Your task to perform on an android device: Search for "macbook pro 13 inch" on costco.com, select the first entry, and add it to the cart. Image 0: 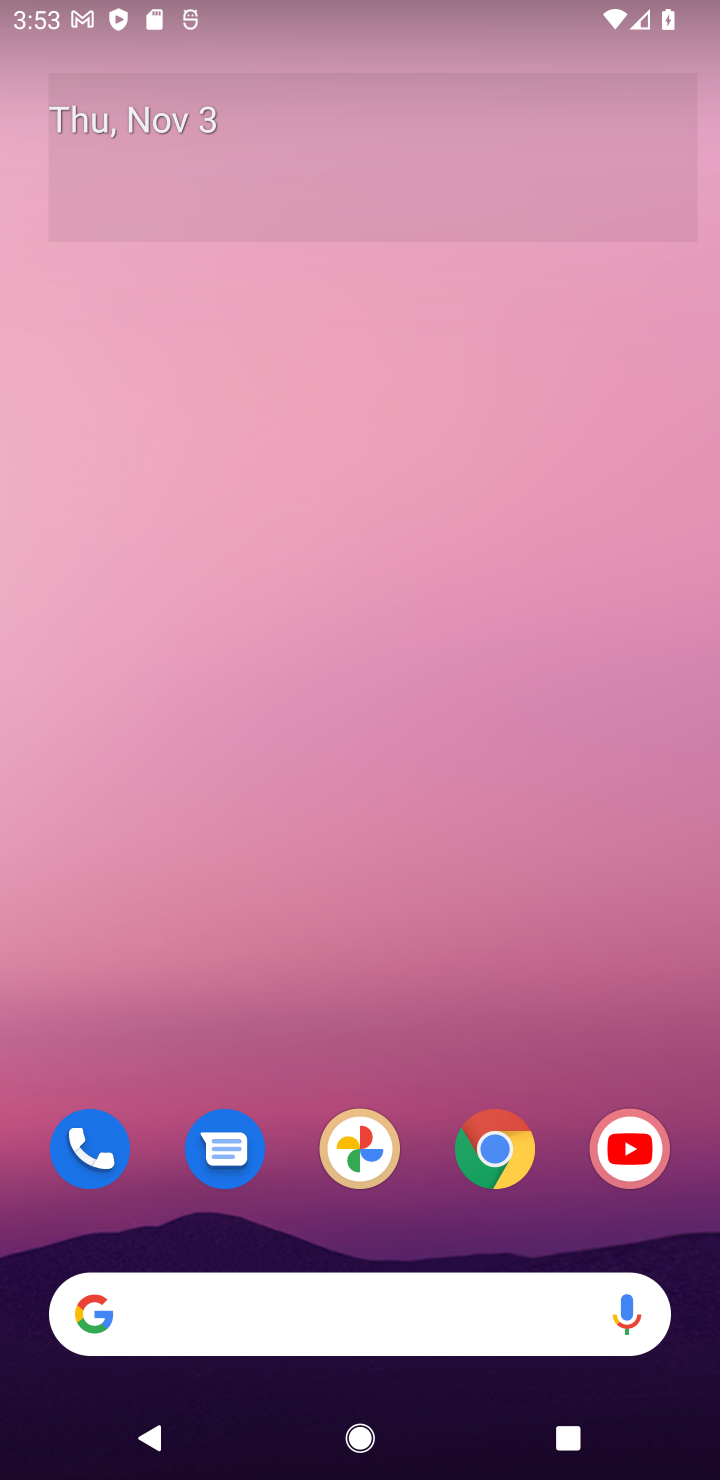
Step 0: press home button
Your task to perform on an android device: Search for "macbook pro 13 inch" on costco.com, select the first entry, and add it to the cart. Image 1: 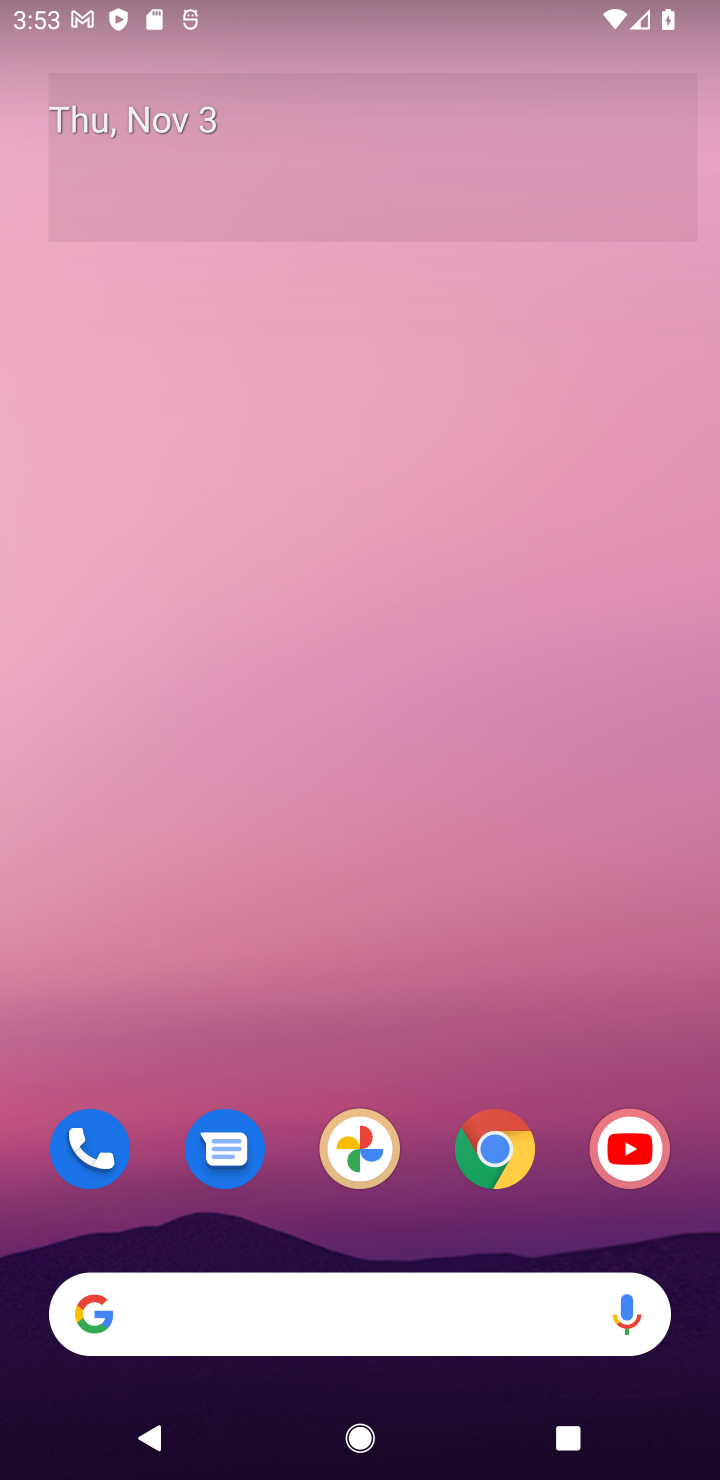
Step 1: drag from (419, 1062) to (502, 11)
Your task to perform on an android device: Search for "macbook pro 13 inch" on costco.com, select the first entry, and add it to the cart. Image 2: 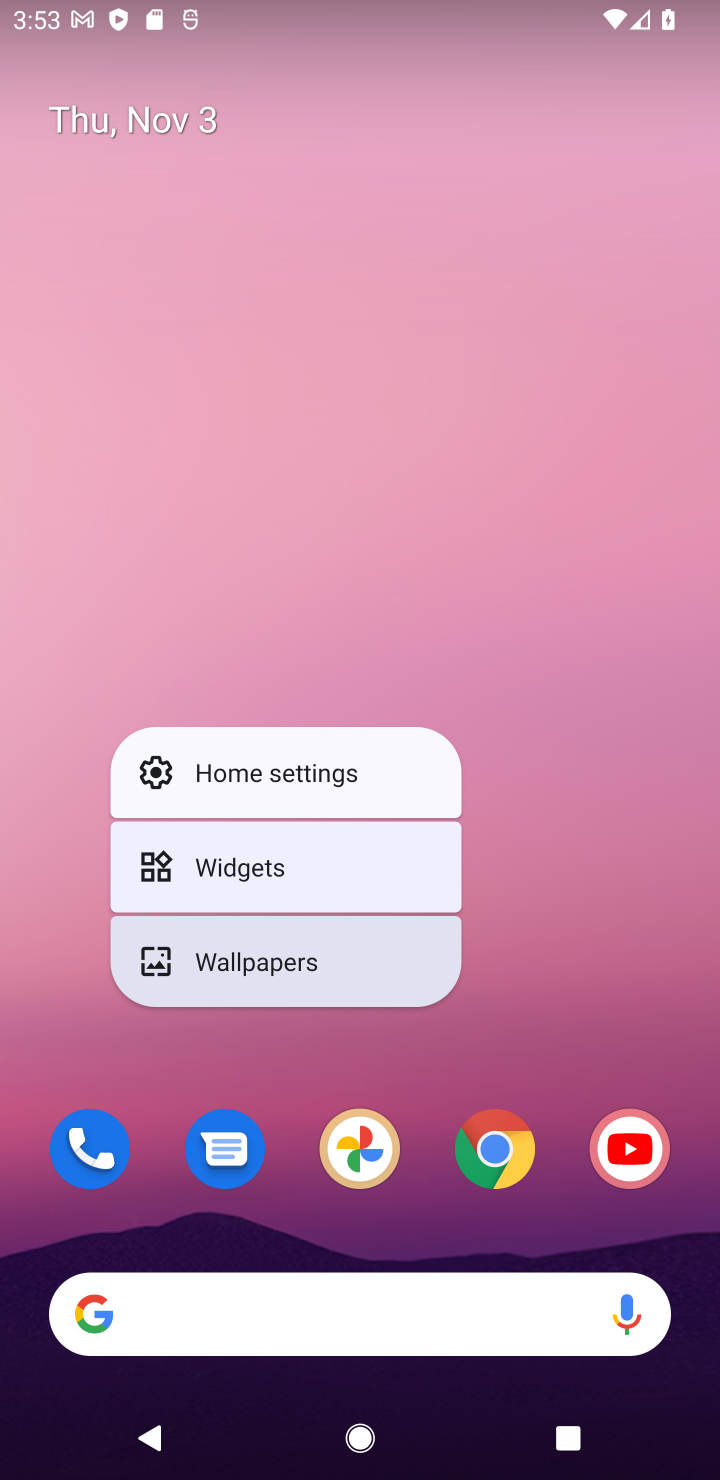
Step 2: click (594, 724)
Your task to perform on an android device: Search for "macbook pro 13 inch" on costco.com, select the first entry, and add it to the cart. Image 3: 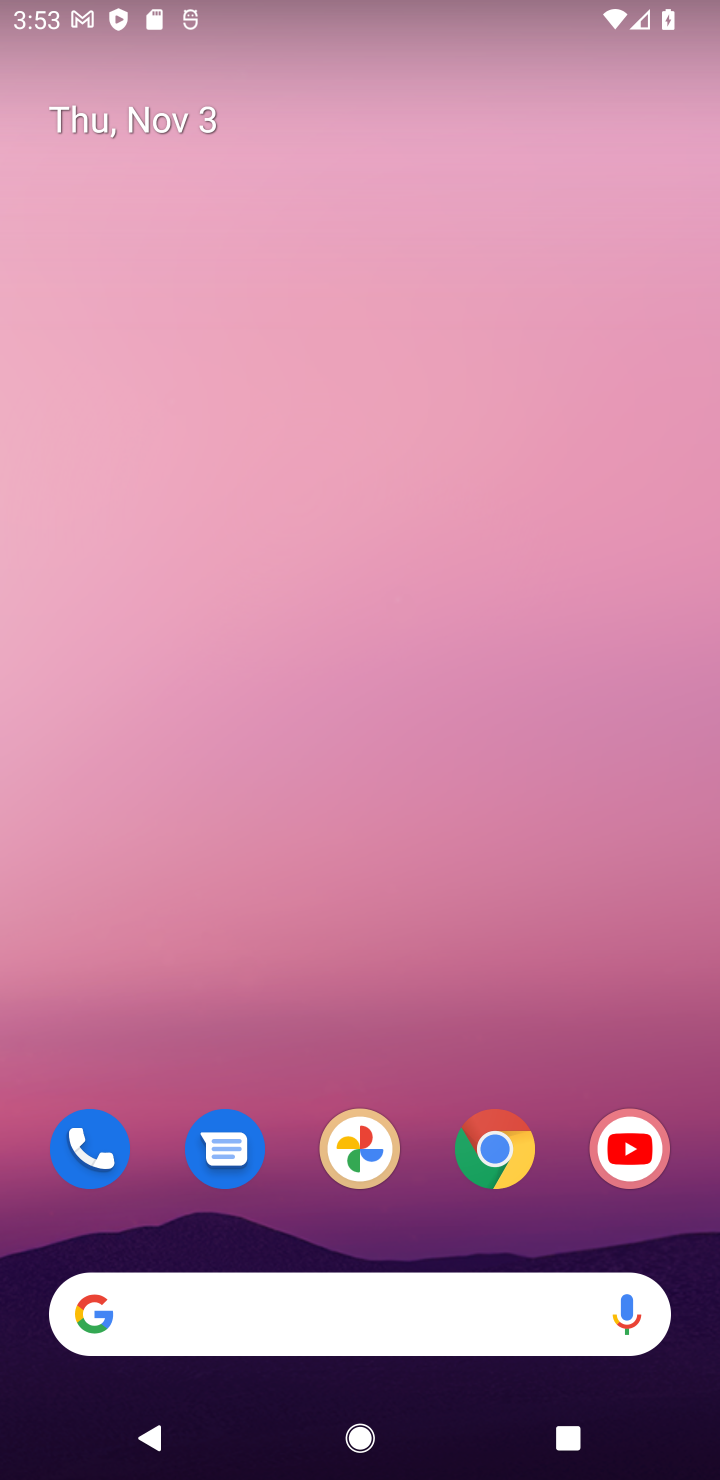
Step 3: drag from (409, 1055) to (419, 27)
Your task to perform on an android device: Search for "macbook pro 13 inch" on costco.com, select the first entry, and add it to the cart. Image 4: 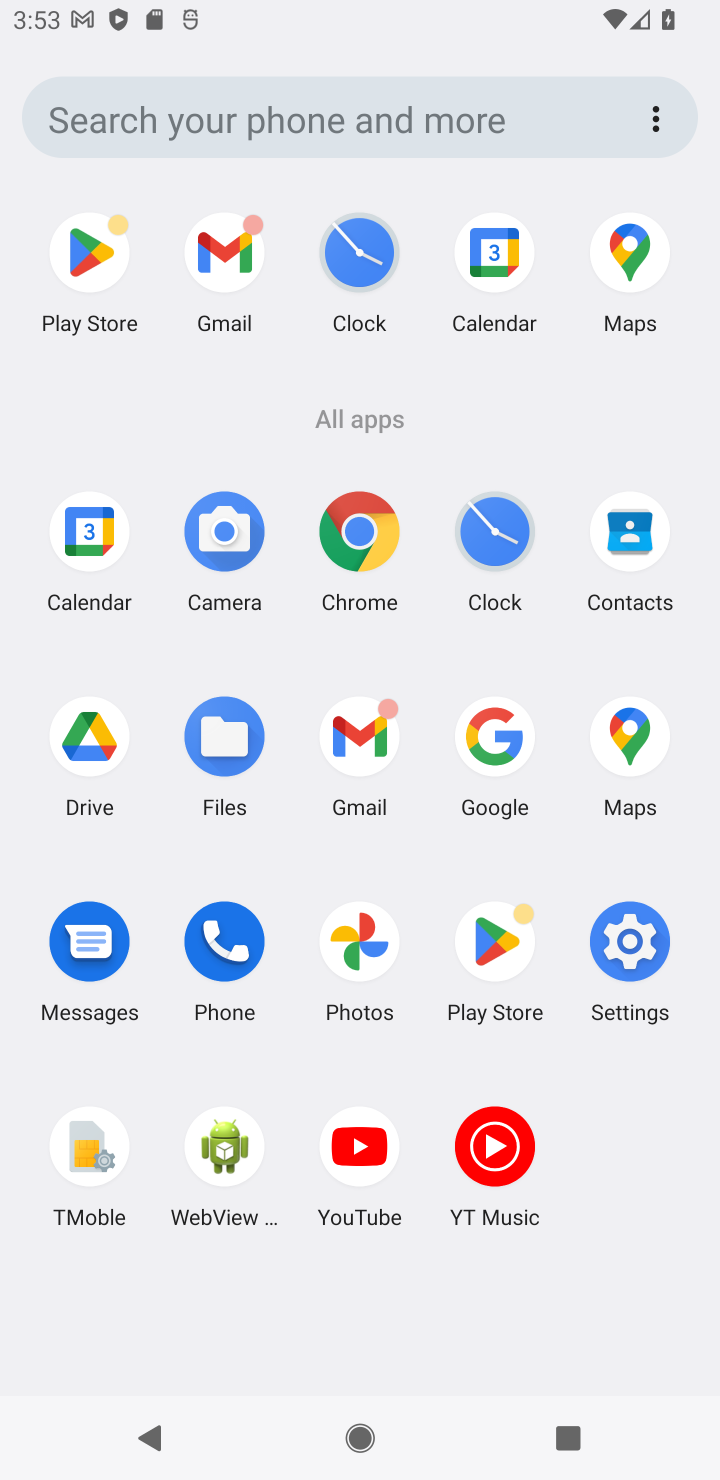
Step 4: click (354, 531)
Your task to perform on an android device: Search for "macbook pro 13 inch" on costco.com, select the first entry, and add it to the cart. Image 5: 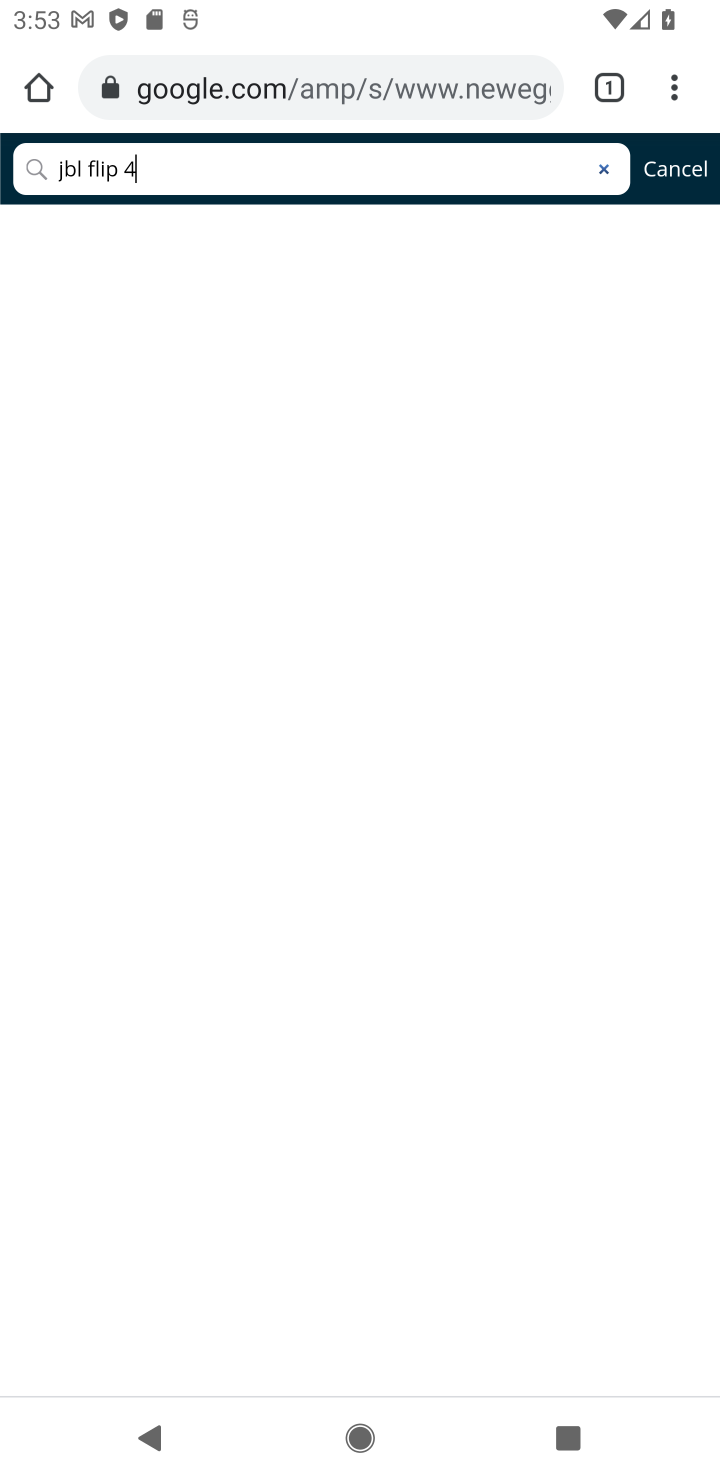
Step 5: click (217, 90)
Your task to perform on an android device: Search for "macbook pro 13 inch" on costco.com, select the first entry, and add it to the cart. Image 6: 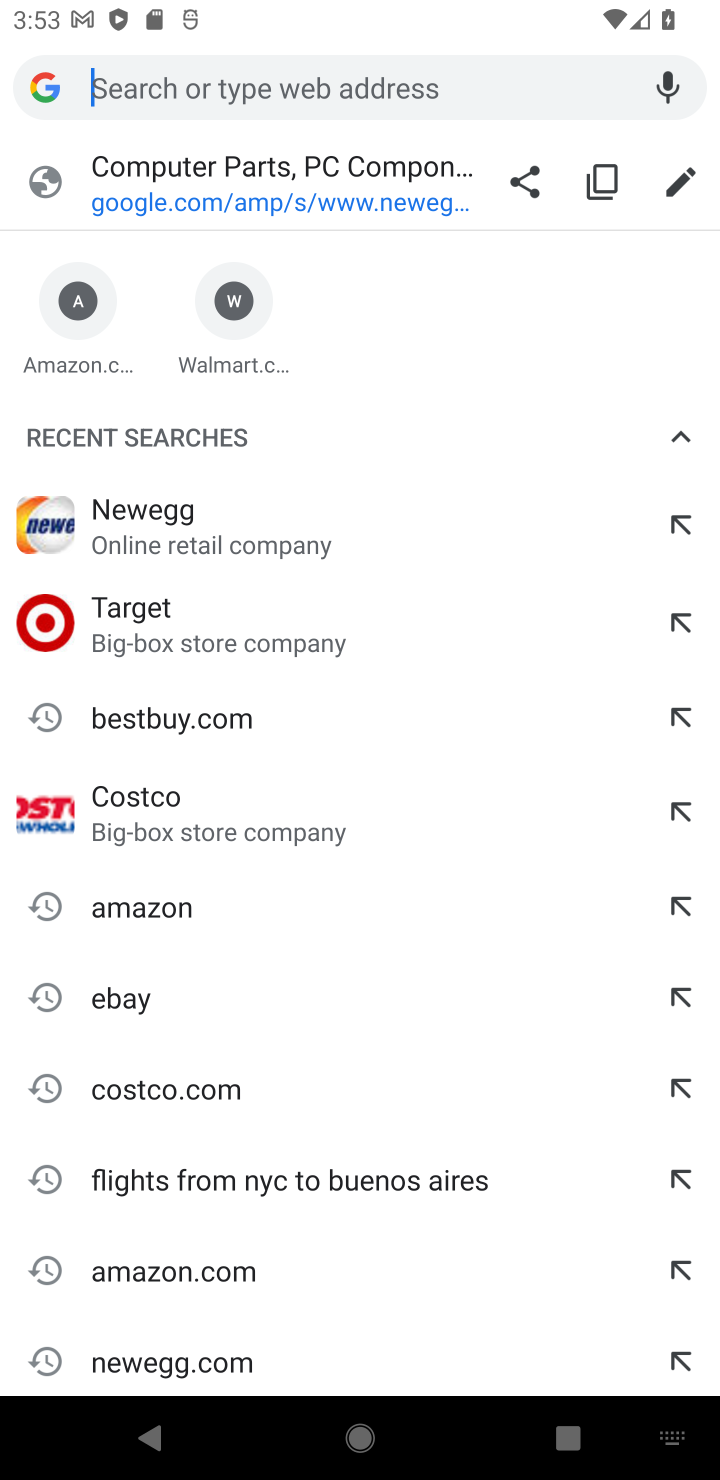
Step 6: click (202, 816)
Your task to perform on an android device: Search for "macbook pro 13 inch" on costco.com, select the first entry, and add it to the cart. Image 7: 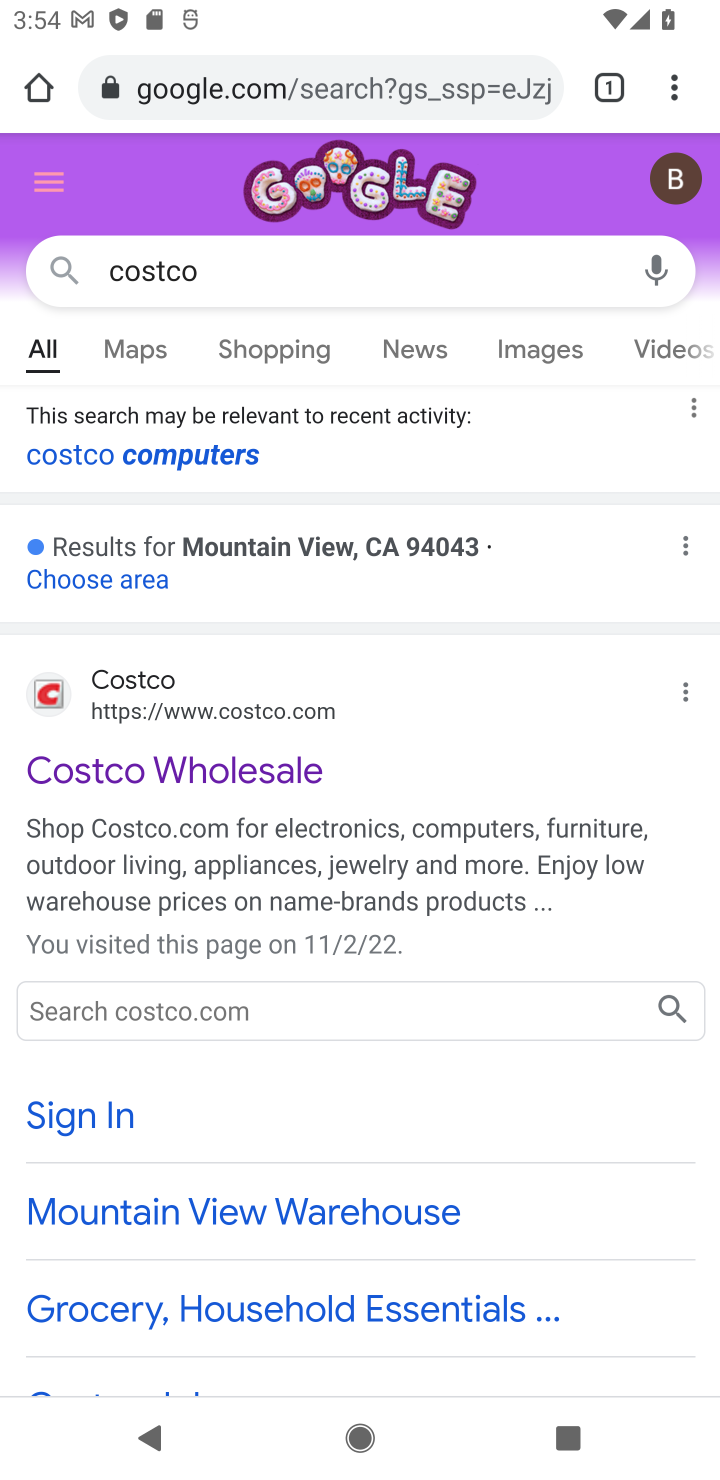
Step 7: click (243, 764)
Your task to perform on an android device: Search for "macbook pro 13 inch" on costco.com, select the first entry, and add it to the cart. Image 8: 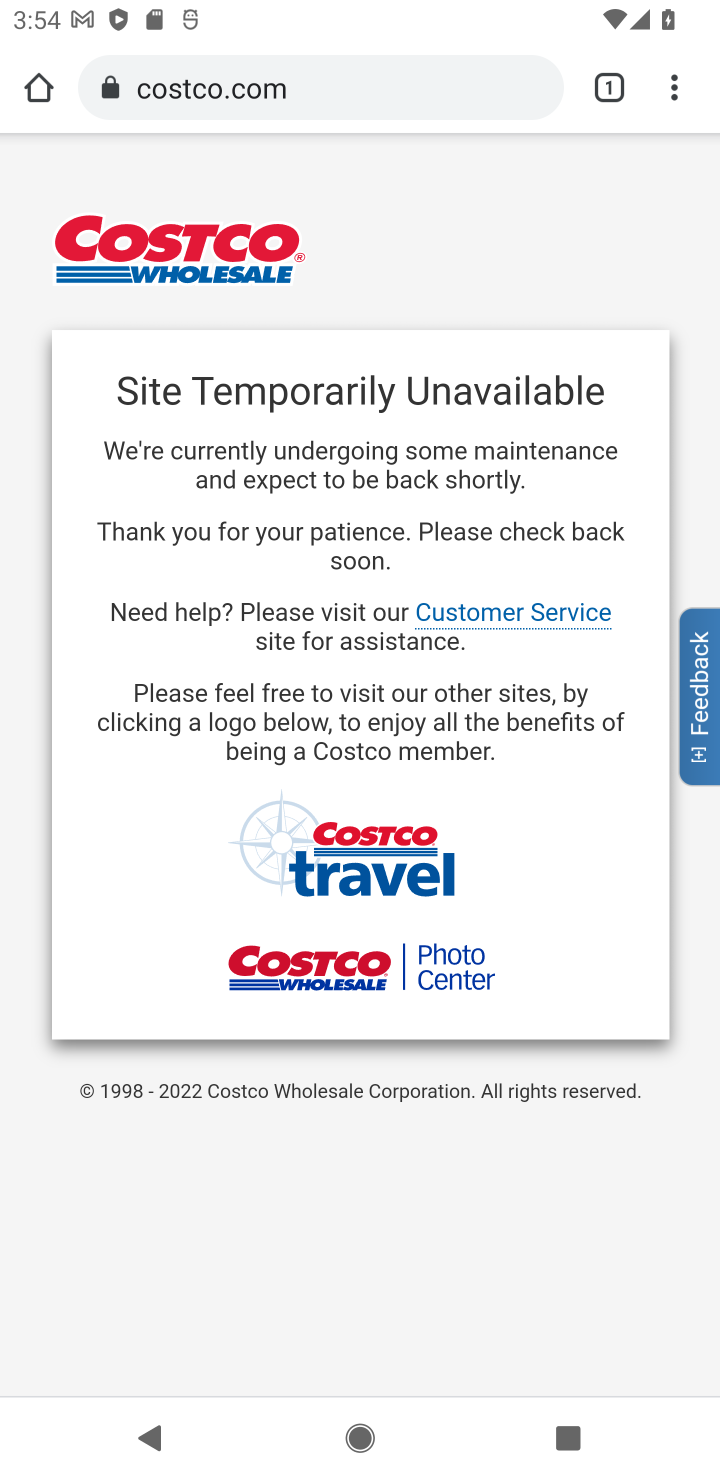
Step 8: task complete